Your task to perform on an android device: Show me productivity apps on the Play Store Image 0: 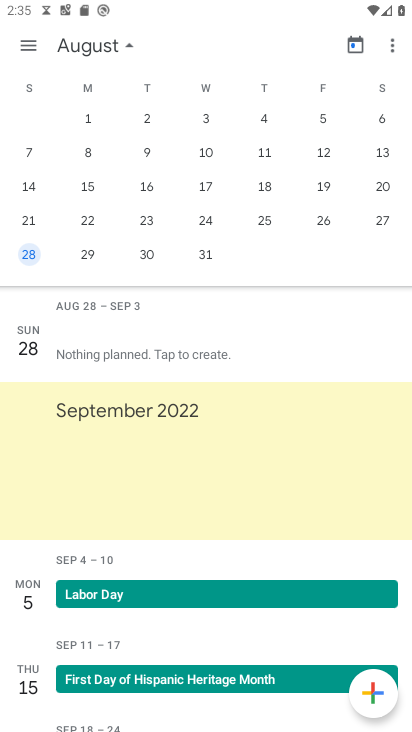
Step 0: press home button
Your task to perform on an android device: Show me productivity apps on the Play Store Image 1: 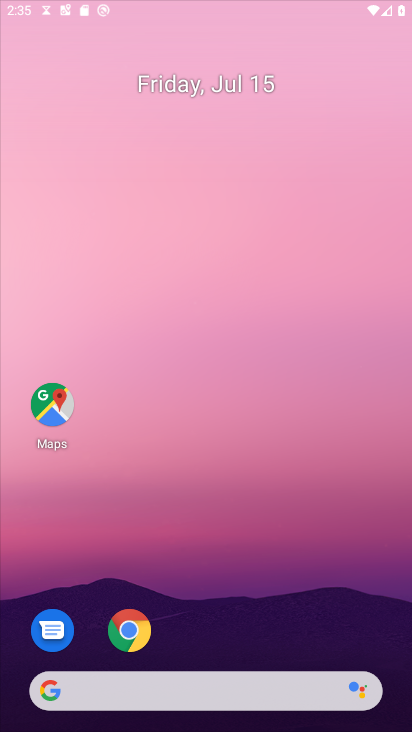
Step 1: drag from (376, 258) to (379, 7)
Your task to perform on an android device: Show me productivity apps on the Play Store Image 2: 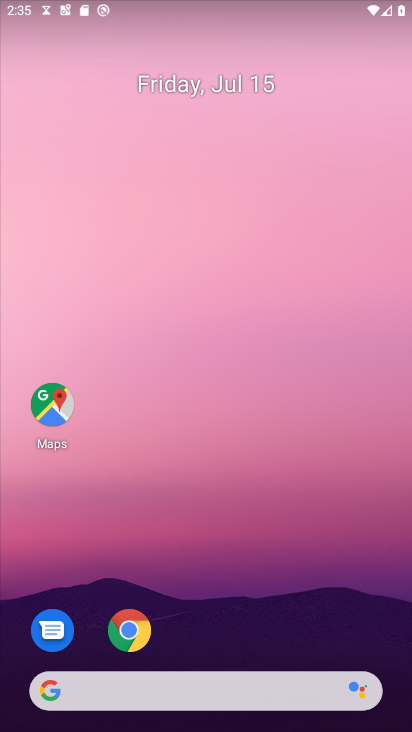
Step 2: drag from (243, 517) to (323, 0)
Your task to perform on an android device: Show me productivity apps on the Play Store Image 3: 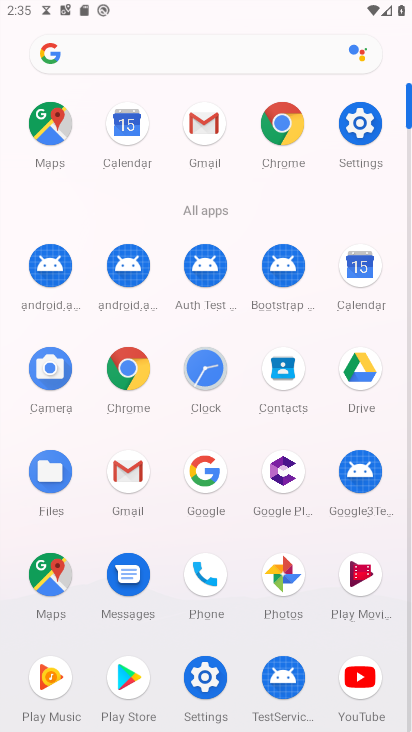
Step 3: click (138, 683)
Your task to perform on an android device: Show me productivity apps on the Play Store Image 4: 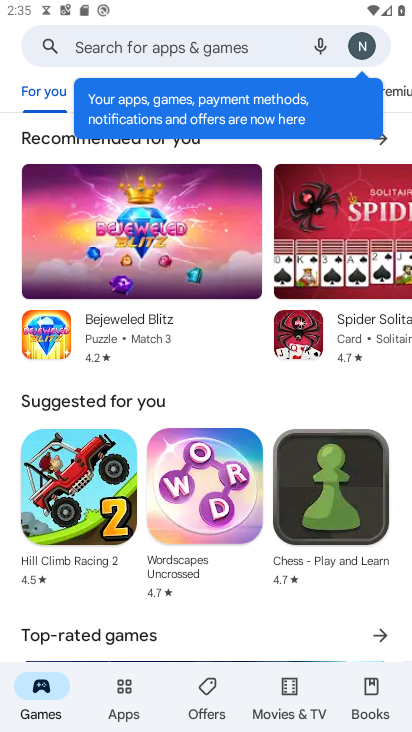
Step 4: click (177, 50)
Your task to perform on an android device: Show me productivity apps on the Play Store Image 5: 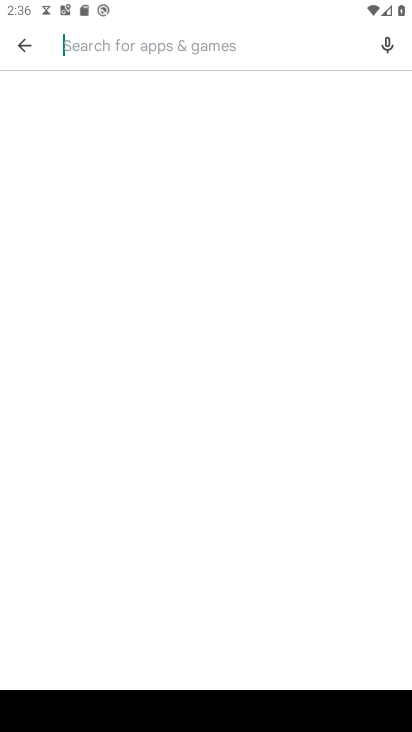
Step 5: type "productivity apps"
Your task to perform on an android device: Show me productivity apps on the Play Store Image 6: 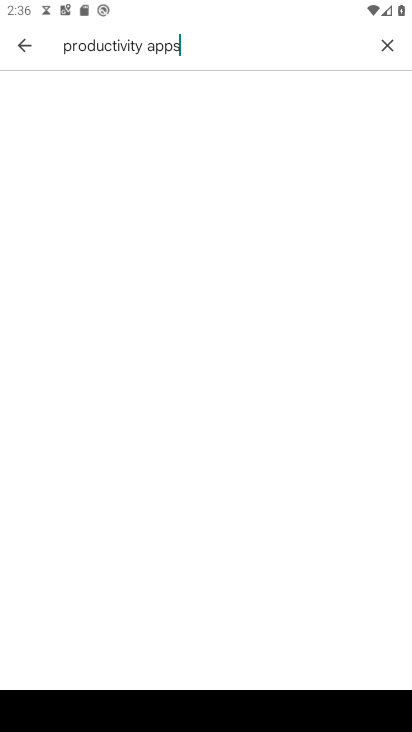
Step 6: press enter
Your task to perform on an android device: Show me productivity apps on the Play Store Image 7: 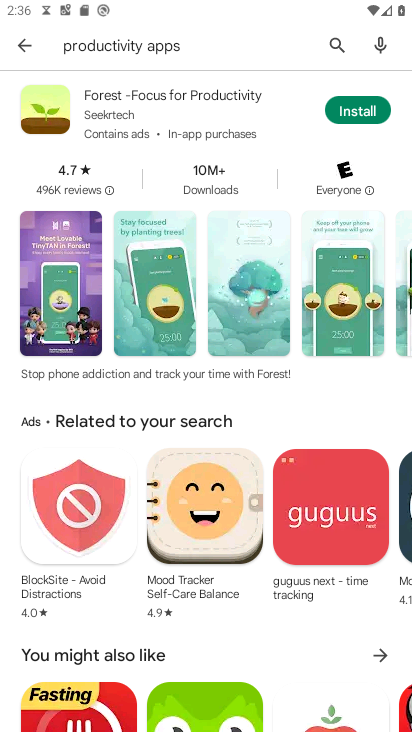
Step 7: task complete